Your task to perform on an android device: Search for pizza restaurants on Maps Image 0: 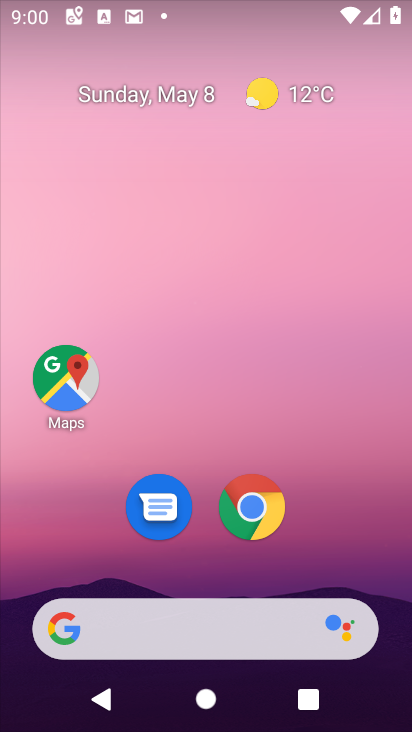
Step 0: click (64, 393)
Your task to perform on an android device: Search for pizza restaurants on Maps Image 1: 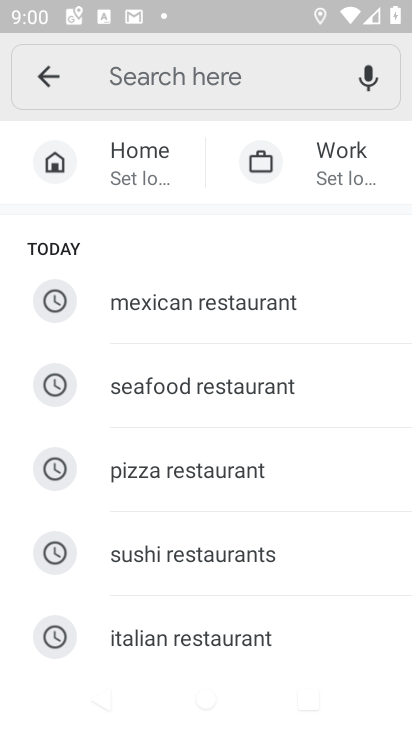
Step 1: click (249, 470)
Your task to perform on an android device: Search for pizza restaurants on Maps Image 2: 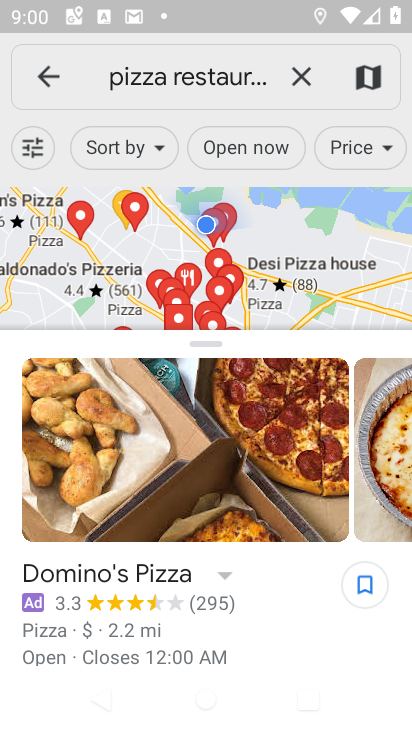
Step 2: task complete